Your task to perform on an android device: Open internet settings Image 0: 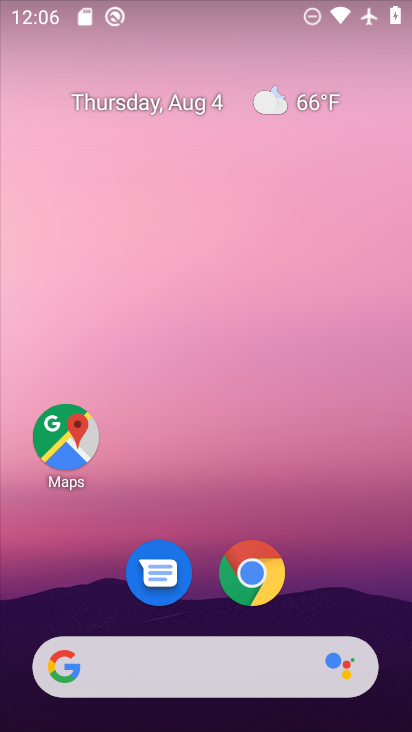
Step 0: drag from (356, 564) to (360, 109)
Your task to perform on an android device: Open internet settings Image 1: 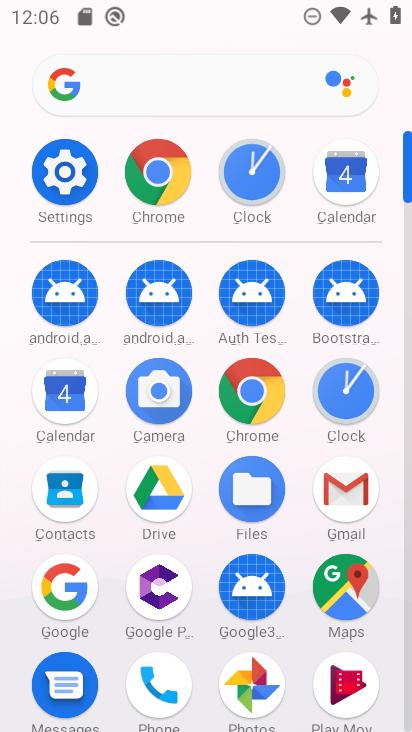
Step 1: click (56, 158)
Your task to perform on an android device: Open internet settings Image 2: 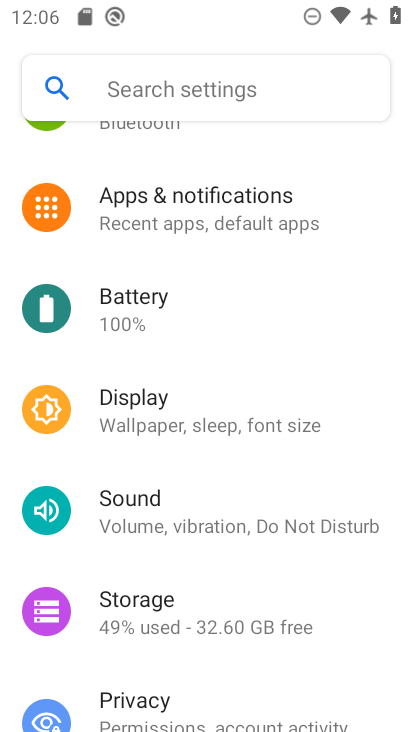
Step 2: drag from (274, 292) to (326, 614)
Your task to perform on an android device: Open internet settings Image 3: 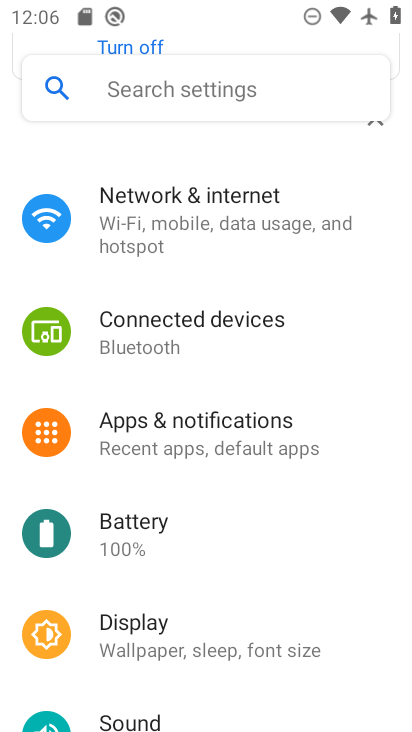
Step 3: click (204, 233)
Your task to perform on an android device: Open internet settings Image 4: 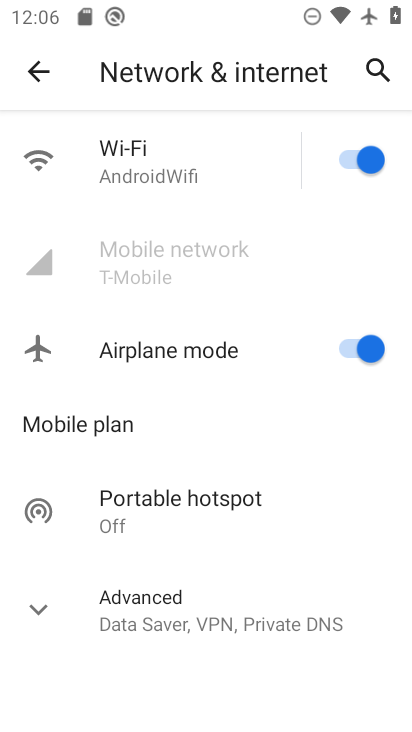
Step 4: click (177, 624)
Your task to perform on an android device: Open internet settings Image 5: 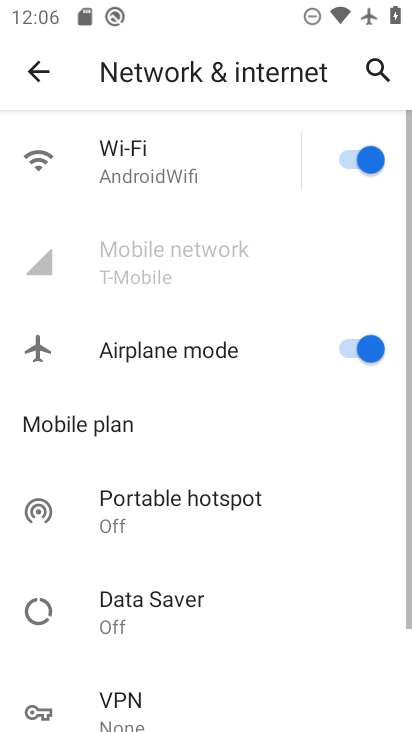
Step 5: task complete